Your task to perform on an android device: install app "Google Photos" Image 0: 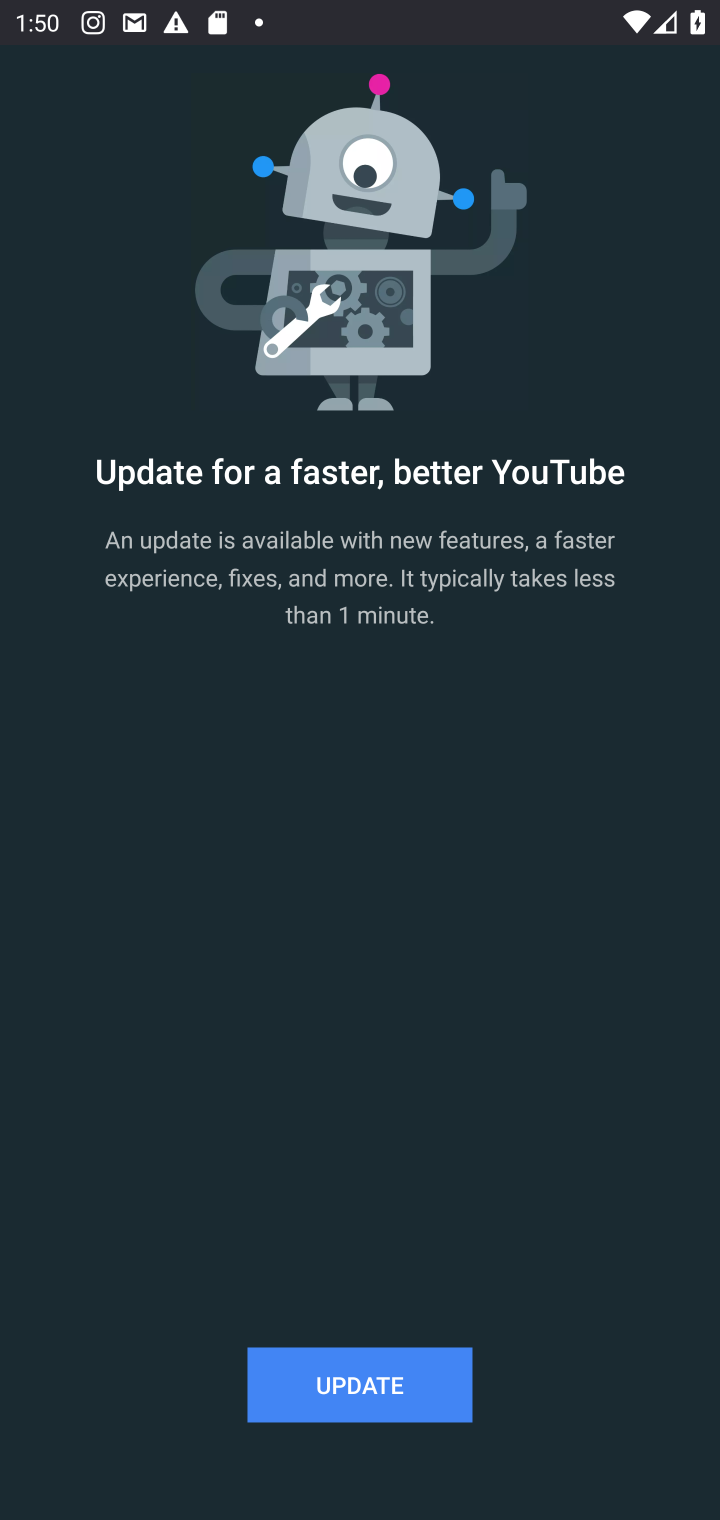
Step 0: press home button
Your task to perform on an android device: install app "Google Photos" Image 1: 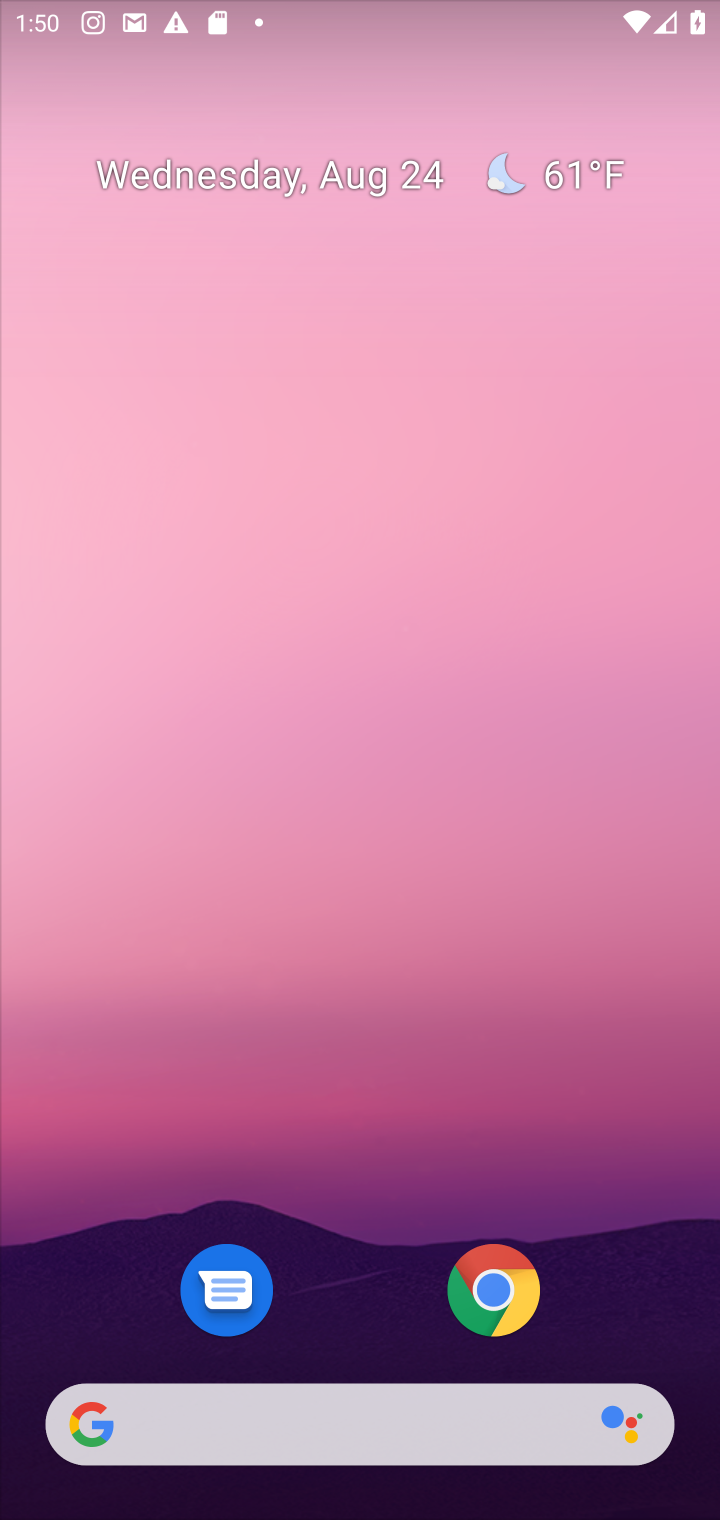
Step 1: press home button
Your task to perform on an android device: install app "Google Photos" Image 2: 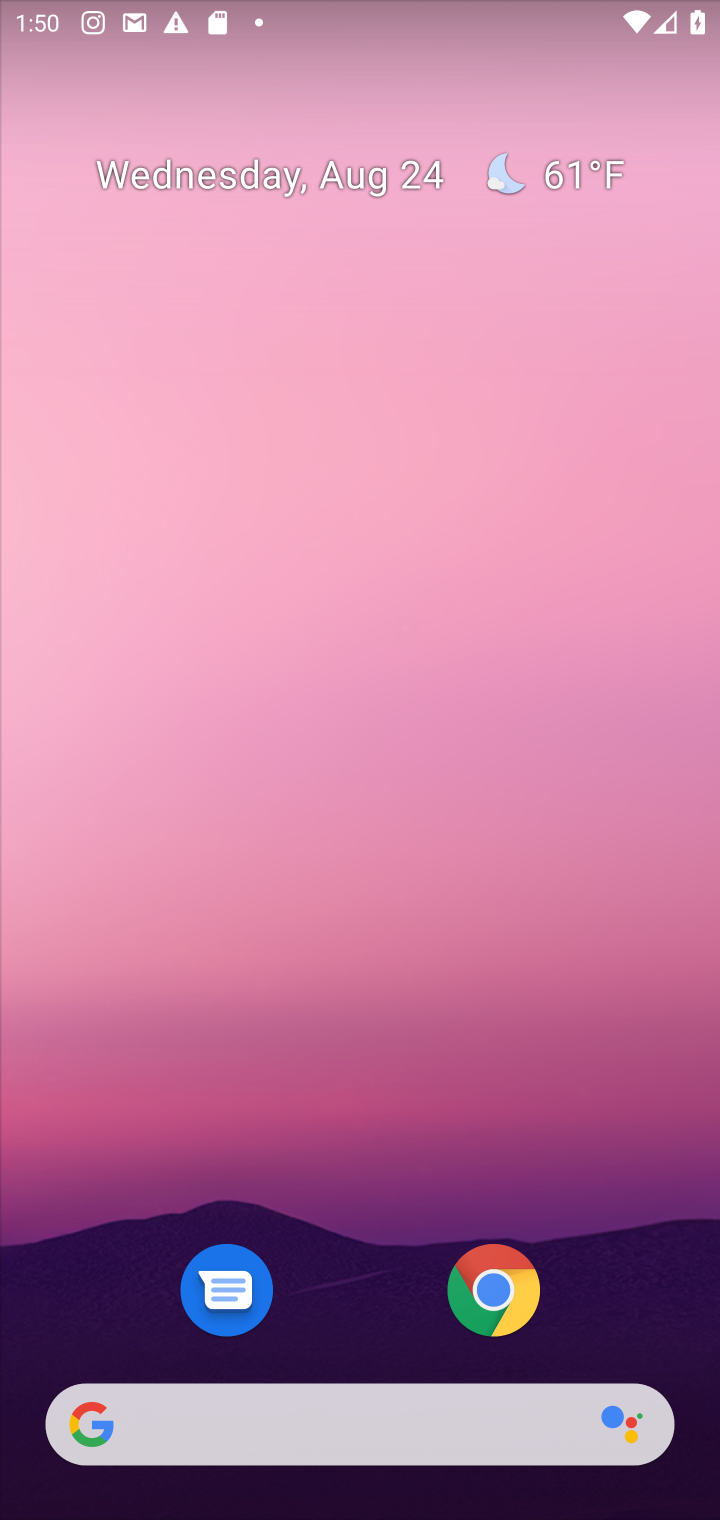
Step 2: drag from (330, 1260) to (354, 11)
Your task to perform on an android device: install app "Google Photos" Image 3: 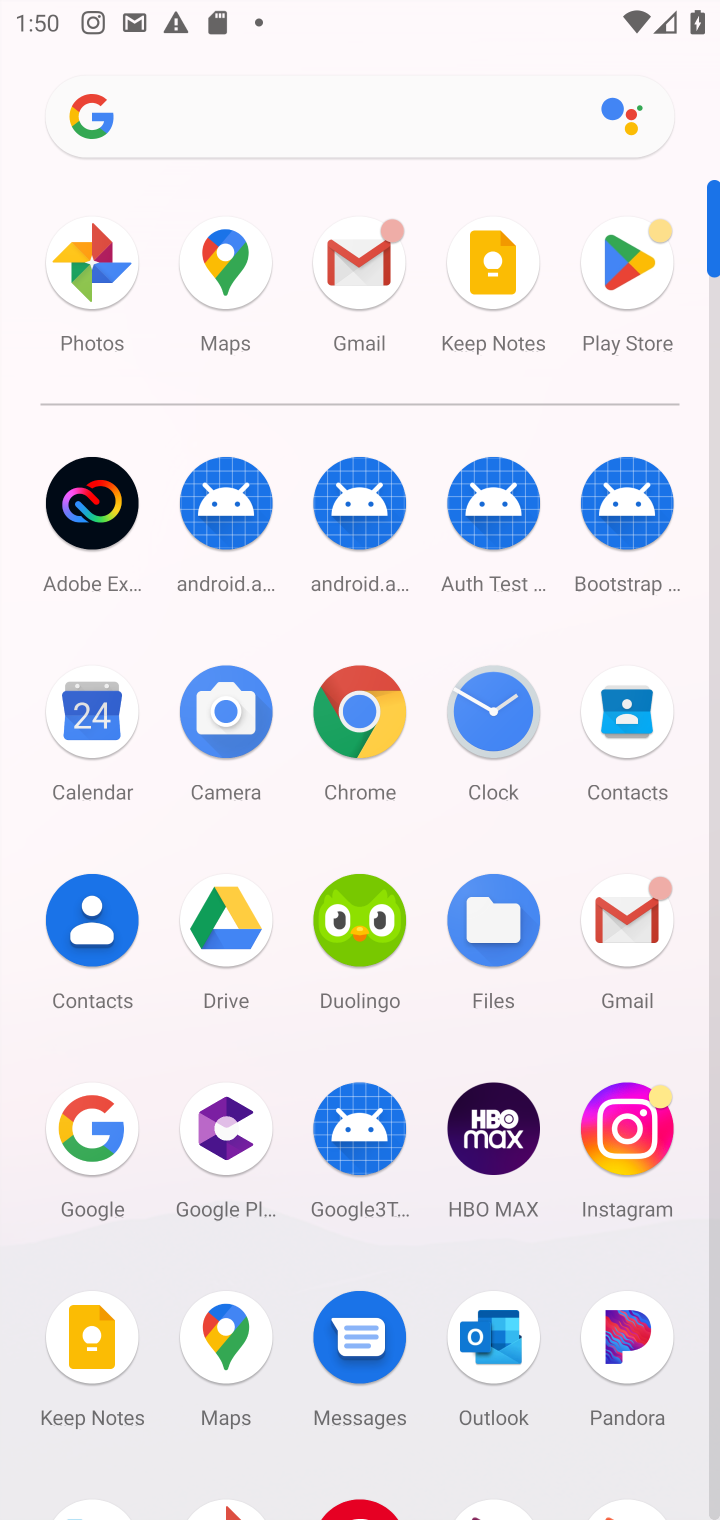
Step 3: click (628, 334)
Your task to perform on an android device: install app "Google Photos" Image 4: 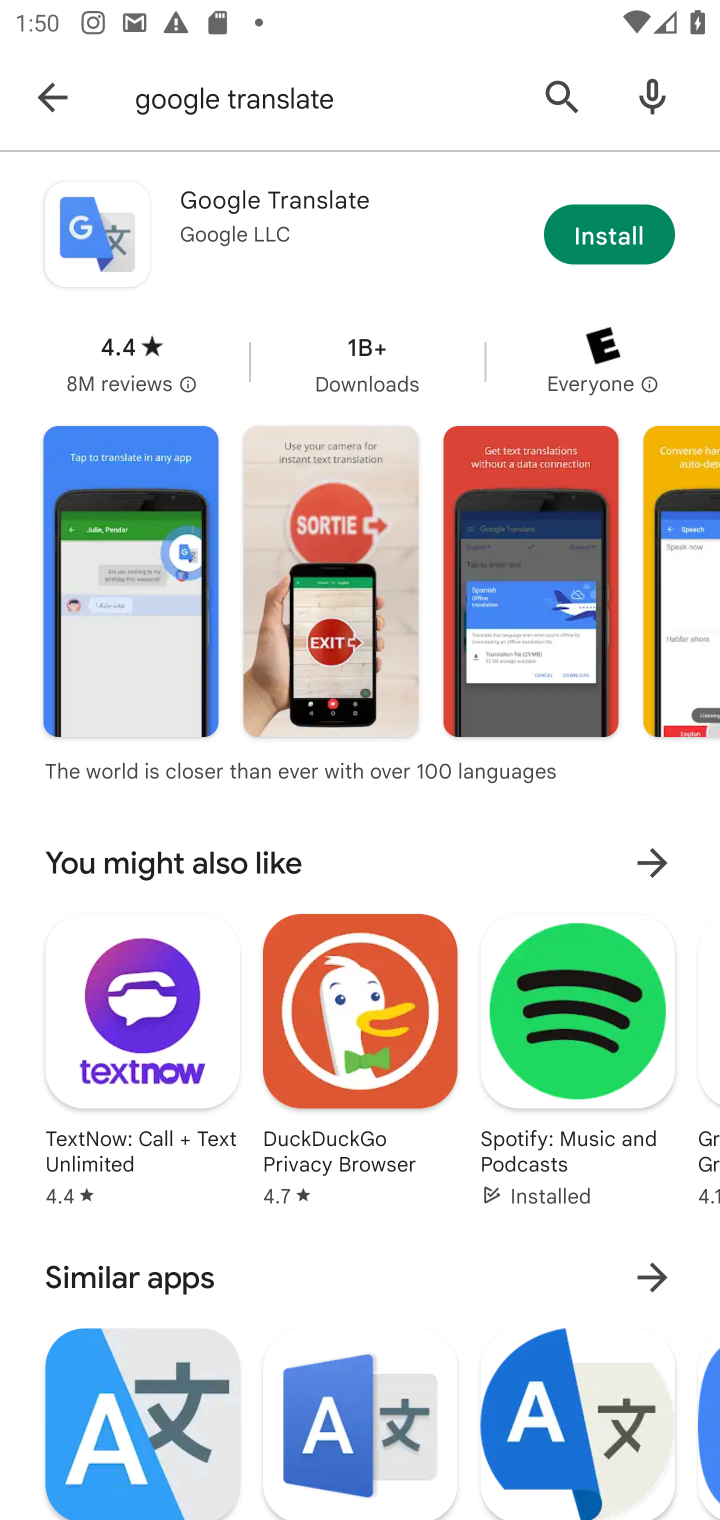
Step 4: click (42, 105)
Your task to perform on an android device: install app "Google Photos" Image 5: 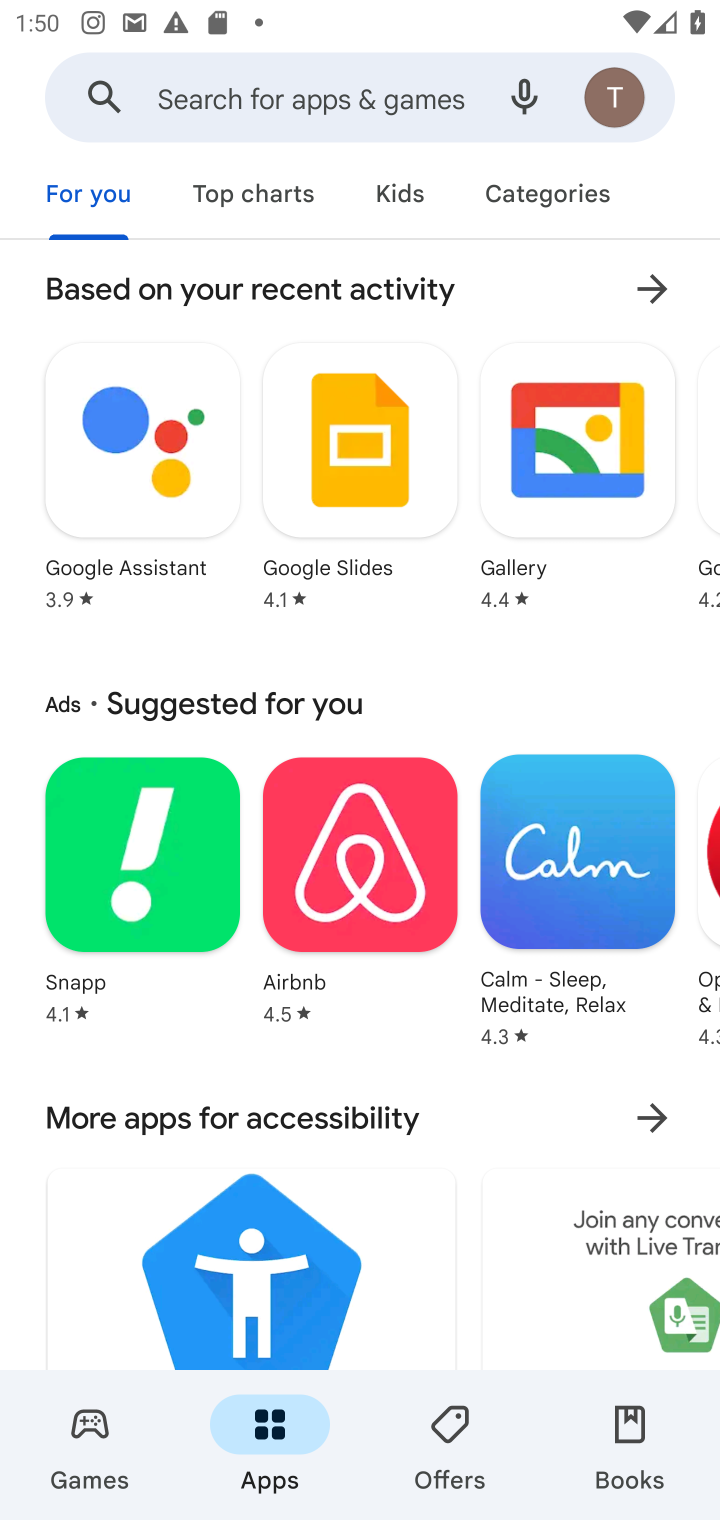
Step 5: click (189, 107)
Your task to perform on an android device: install app "Google Photos" Image 6: 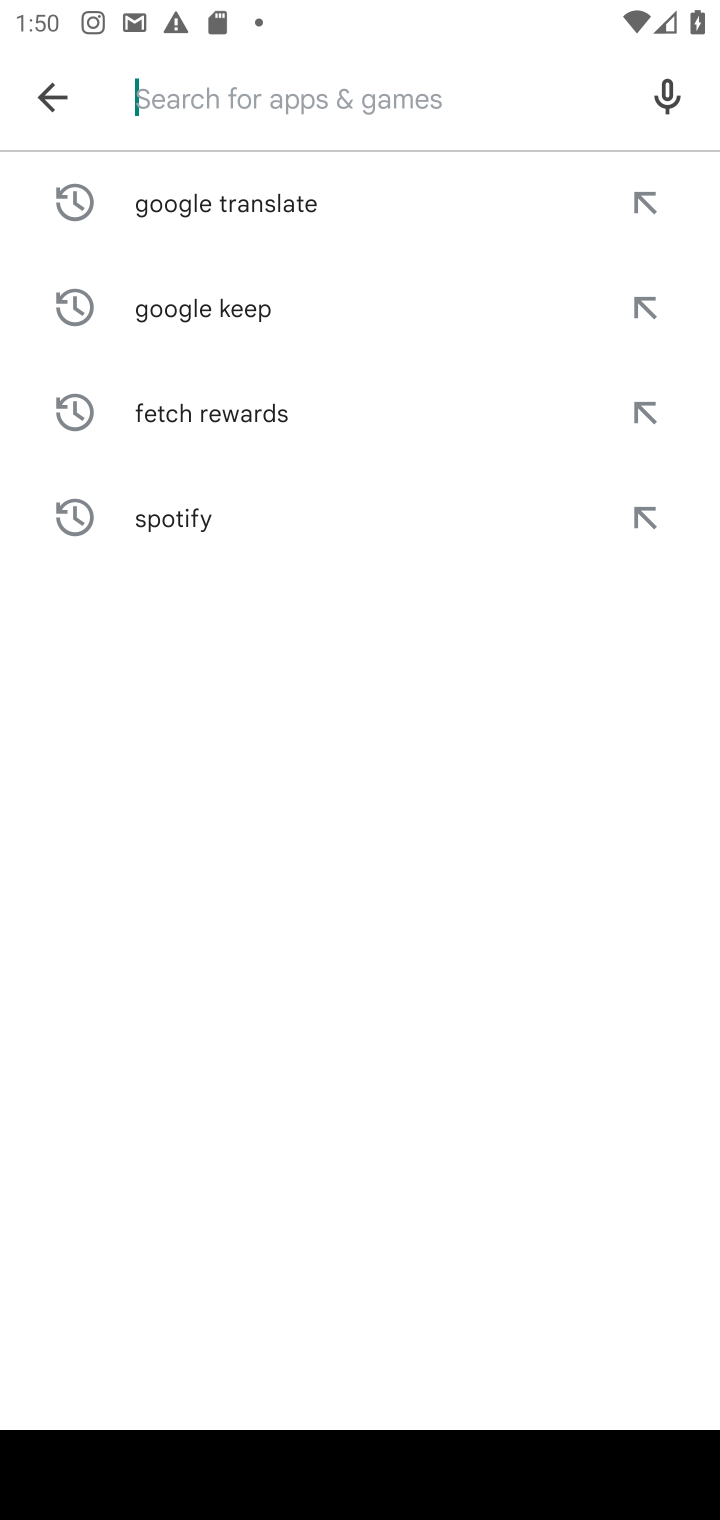
Step 6: type "Google Photos"
Your task to perform on an android device: install app "Google Photos" Image 7: 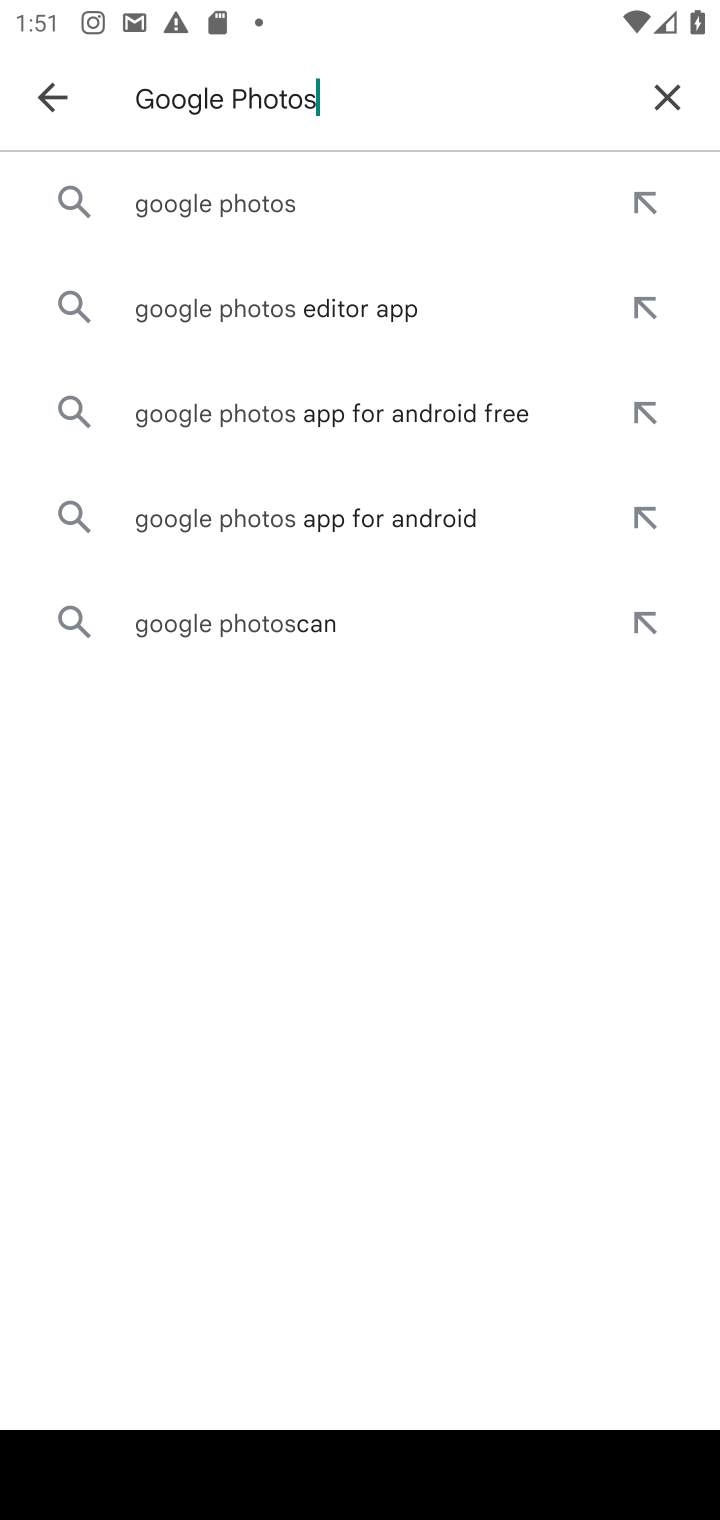
Step 7: click (273, 202)
Your task to perform on an android device: install app "Google Photos" Image 8: 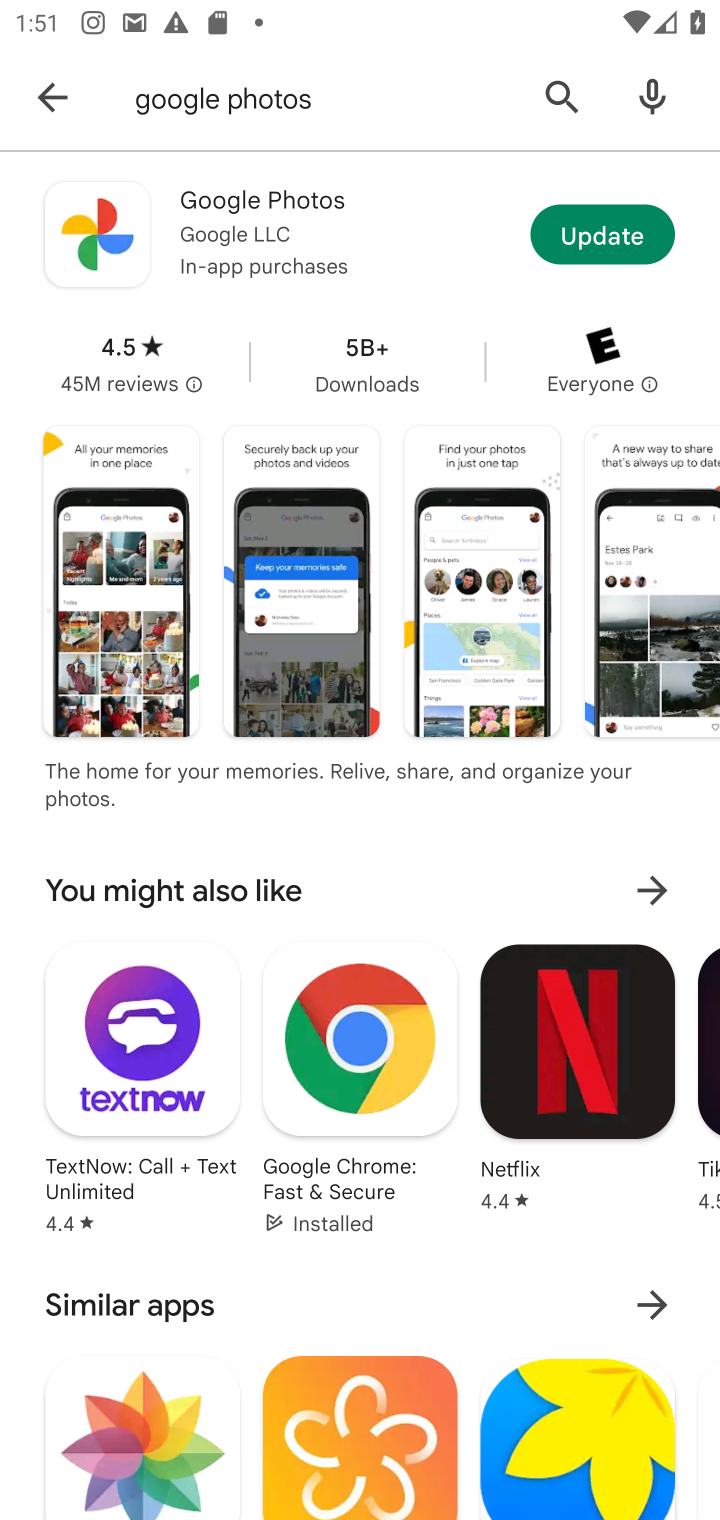
Step 8: click (609, 251)
Your task to perform on an android device: install app "Google Photos" Image 9: 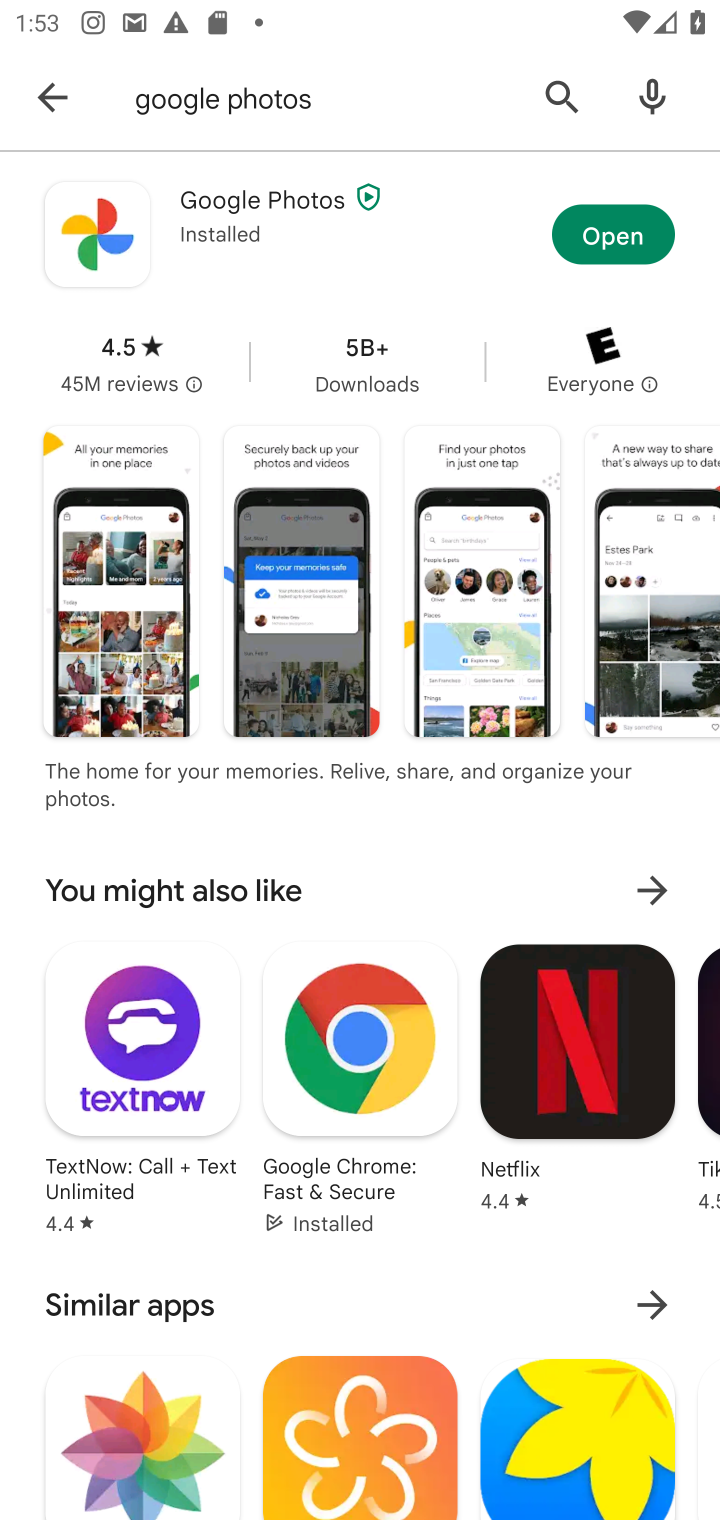
Step 9: click (609, 251)
Your task to perform on an android device: install app "Google Photos" Image 10: 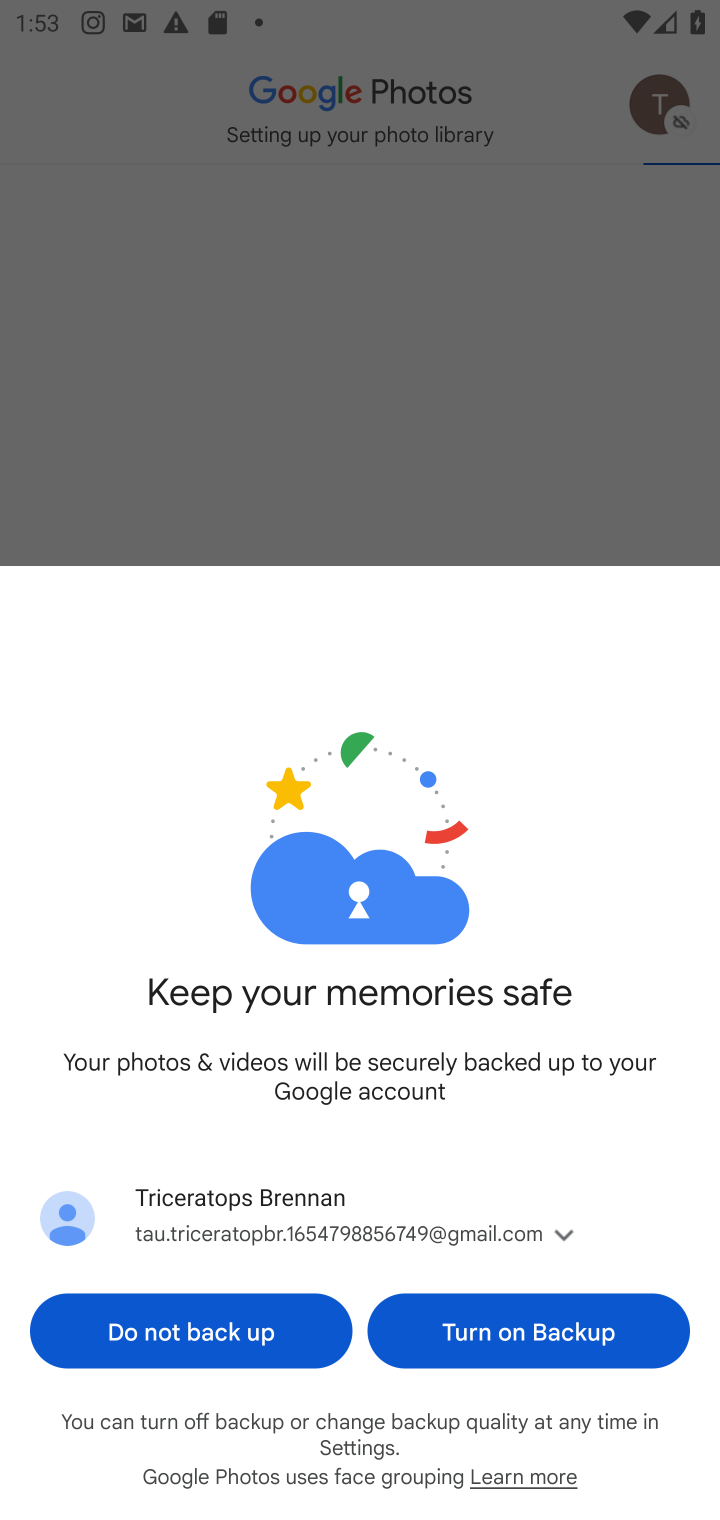
Step 10: task complete